Your task to perform on an android device: turn off airplane mode Image 0: 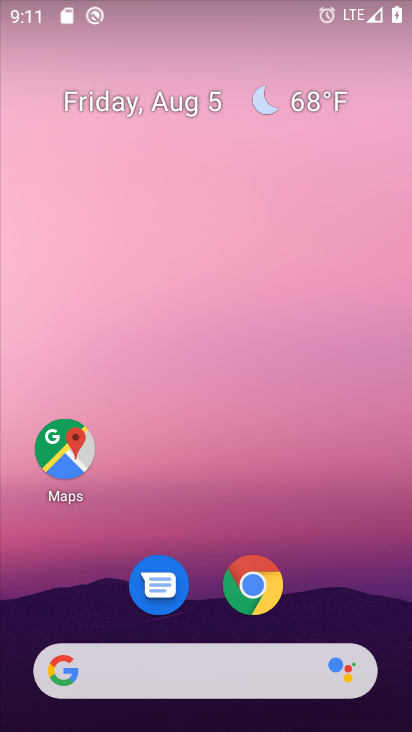
Step 0: drag from (220, 529) to (226, 46)
Your task to perform on an android device: turn off airplane mode Image 1: 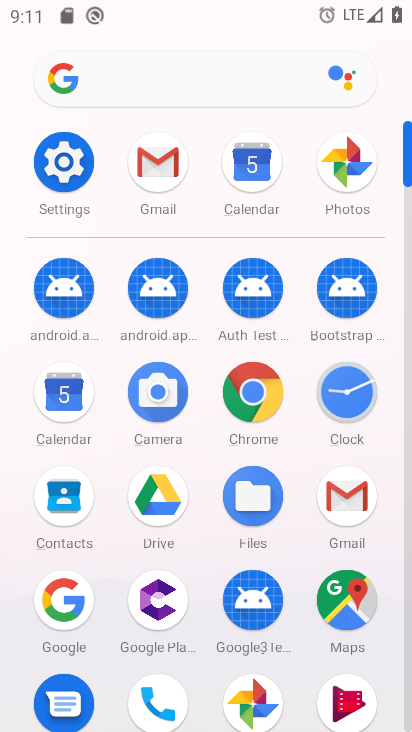
Step 1: click (61, 148)
Your task to perform on an android device: turn off airplane mode Image 2: 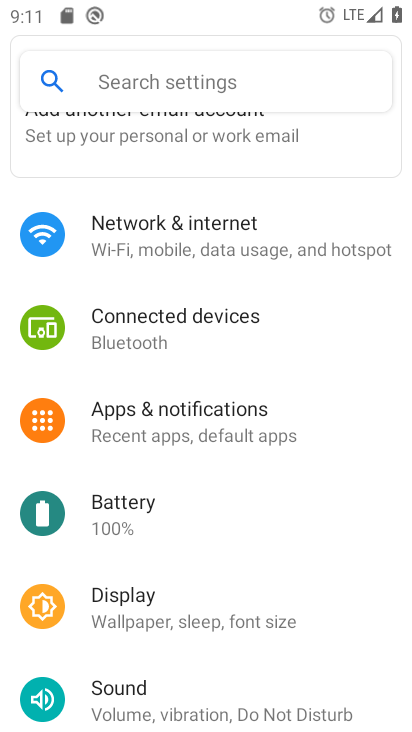
Step 2: click (193, 222)
Your task to perform on an android device: turn off airplane mode Image 3: 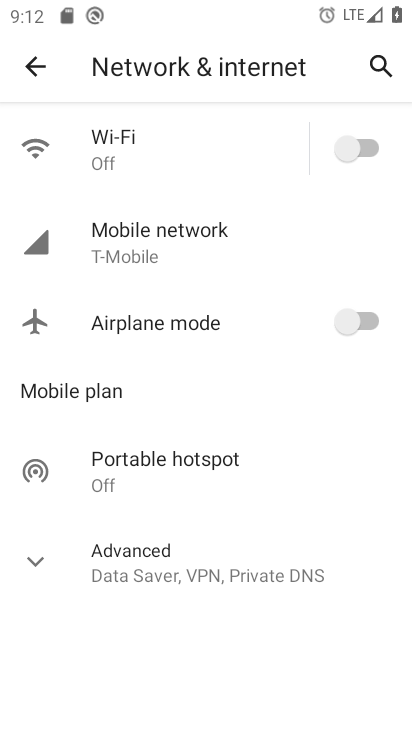
Step 3: task complete